Your task to perform on an android device: Open network settings Image 0: 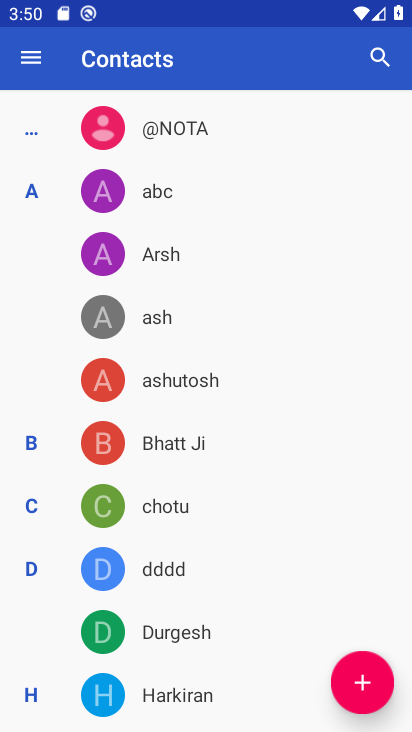
Step 0: press home button
Your task to perform on an android device: Open network settings Image 1: 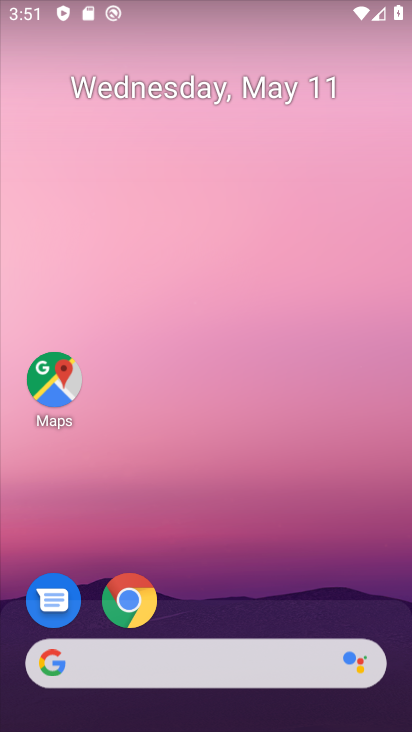
Step 1: drag from (338, 385) to (379, 194)
Your task to perform on an android device: Open network settings Image 2: 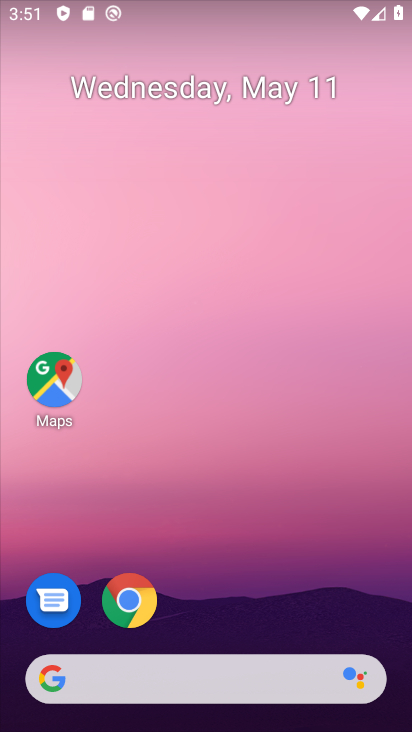
Step 2: drag from (237, 640) to (356, 178)
Your task to perform on an android device: Open network settings Image 3: 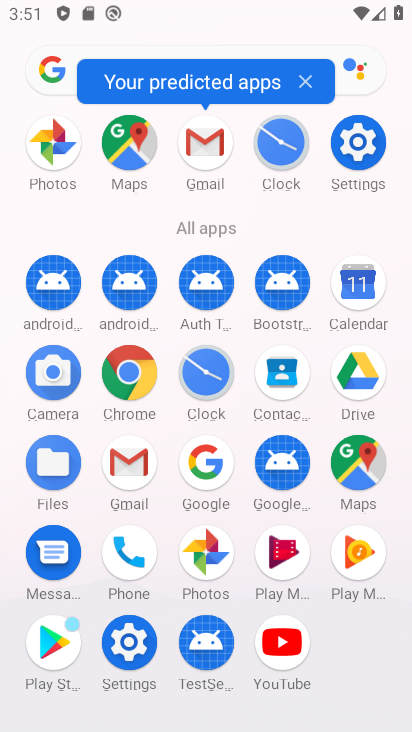
Step 3: click (147, 649)
Your task to perform on an android device: Open network settings Image 4: 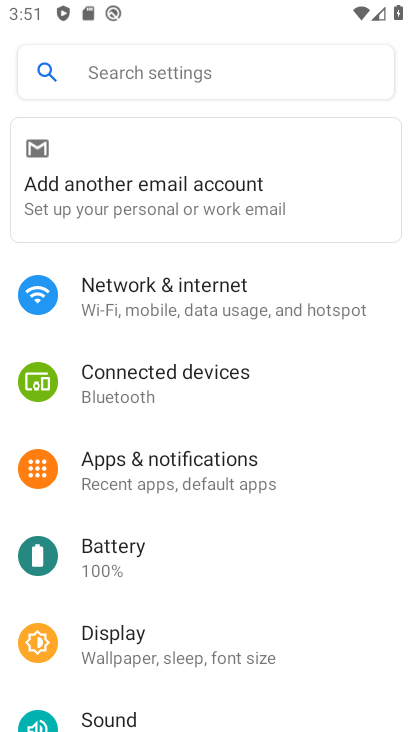
Step 4: click (262, 305)
Your task to perform on an android device: Open network settings Image 5: 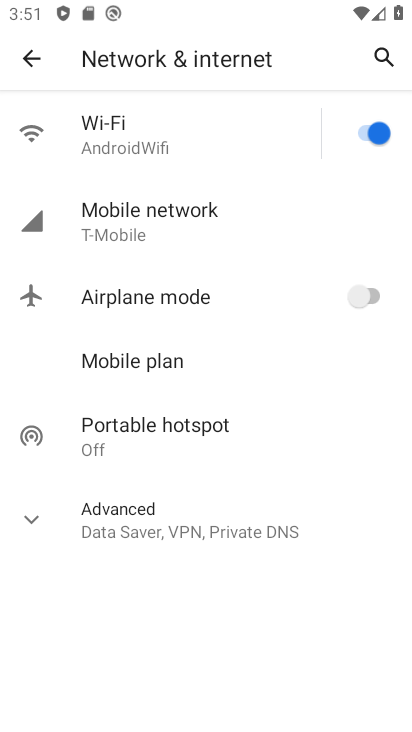
Step 5: click (222, 224)
Your task to perform on an android device: Open network settings Image 6: 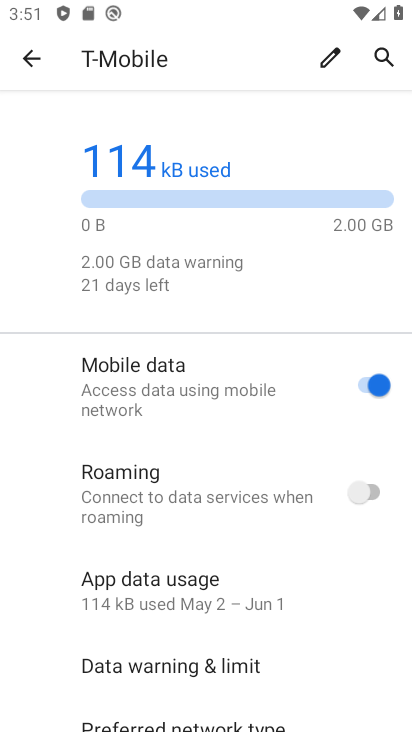
Step 6: task complete